Your task to perform on an android device: turn pop-ups off in chrome Image 0: 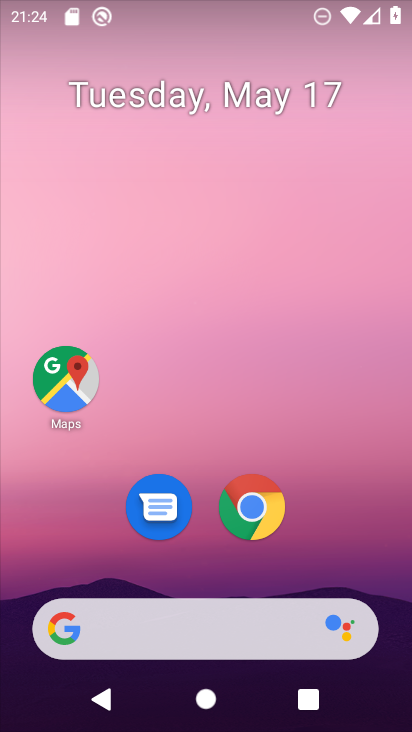
Step 0: click (264, 503)
Your task to perform on an android device: turn pop-ups off in chrome Image 1: 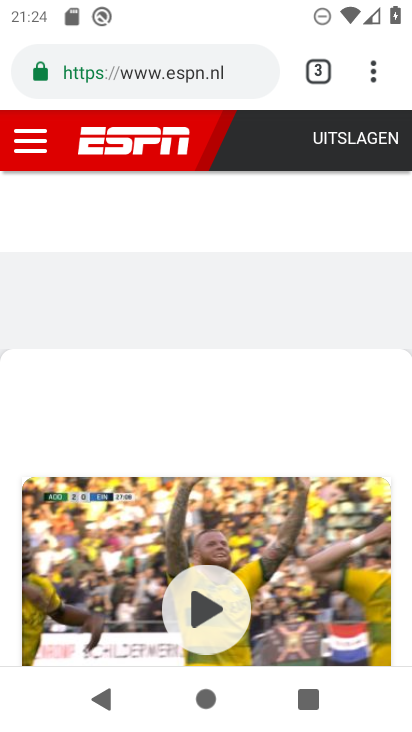
Step 1: click (377, 74)
Your task to perform on an android device: turn pop-ups off in chrome Image 2: 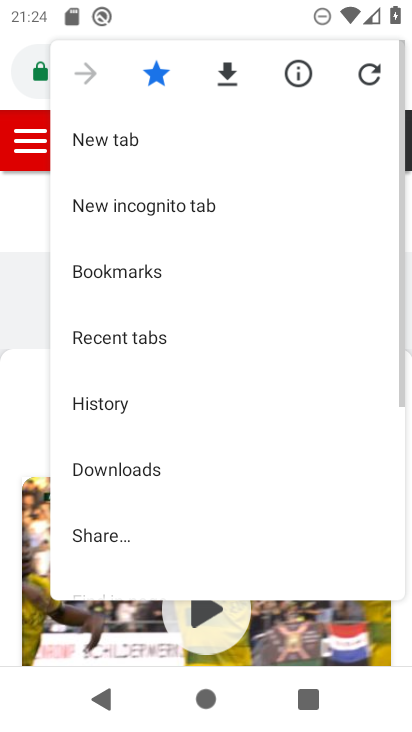
Step 2: drag from (247, 488) to (185, 146)
Your task to perform on an android device: turn pop-ups off in chrome Image 3: 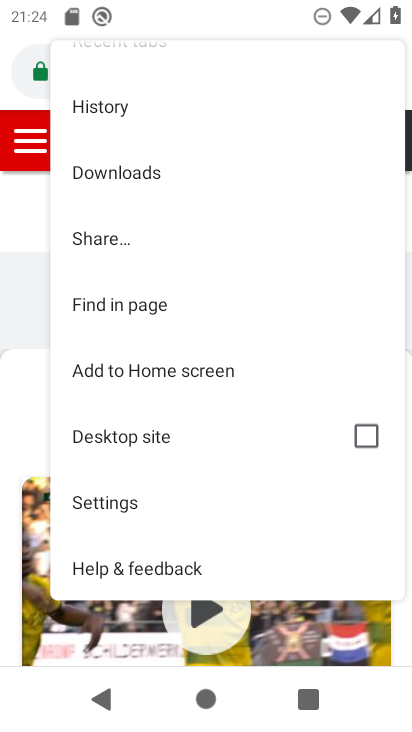
Step 3: click (96, 503)
Your task to perform on an android device: turn pop-ups off in chrome Image 4: 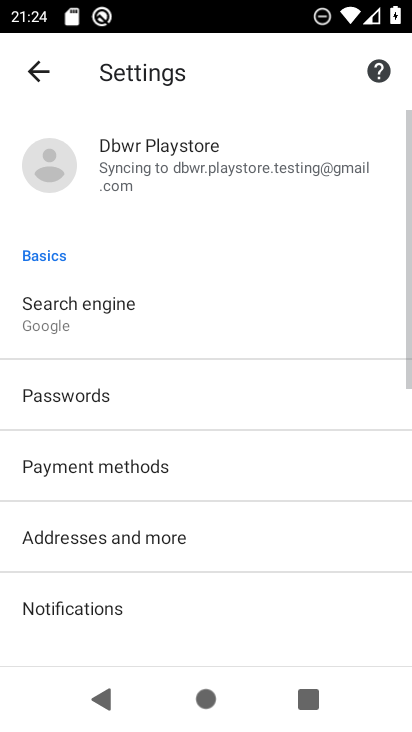
Step 4: drag from (204, 585) to (223, 175)
Your task to perform on an android device: turn pop-ups off in chrome Image 5: 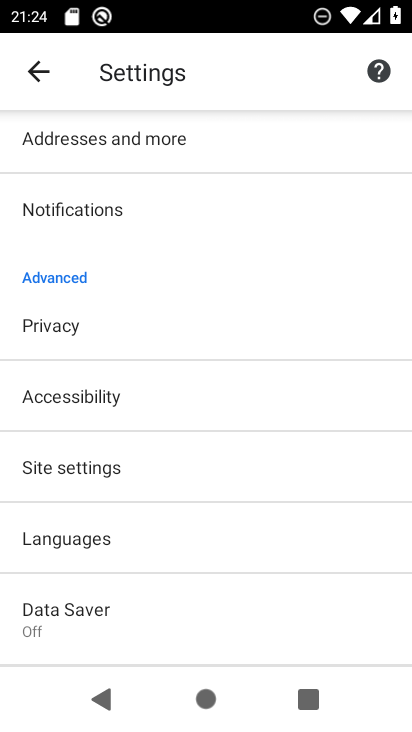
Step 5: click (101, 468)
Your task to perform on an android device: turn pop-ups off in chrome Image 6: 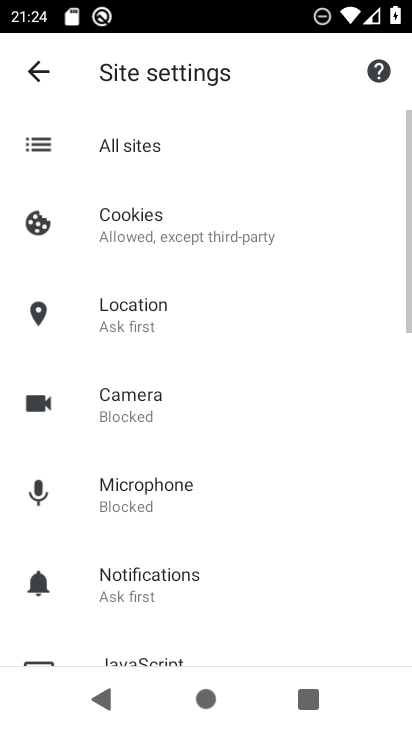
Step 6: drag from (223, 573) to (203, 178)
Your task to perform on an android device: turn pop-ups off in chrome Image 7: 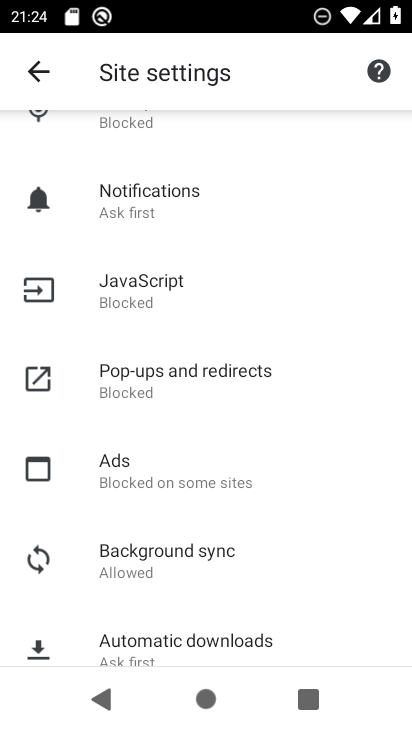
Step 7: click (170, 363)
Your task to perform on an android device: turn pop-ups off in chrome Image 8: 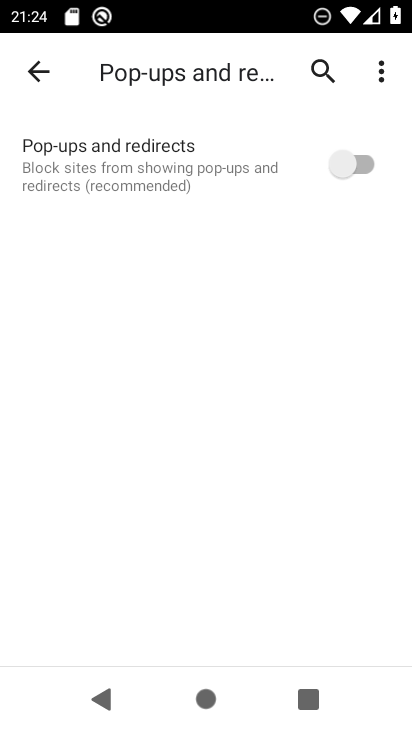
Step 8: task complete